Your task to perform on an android device: allow cookies in the chrome app Image 0: 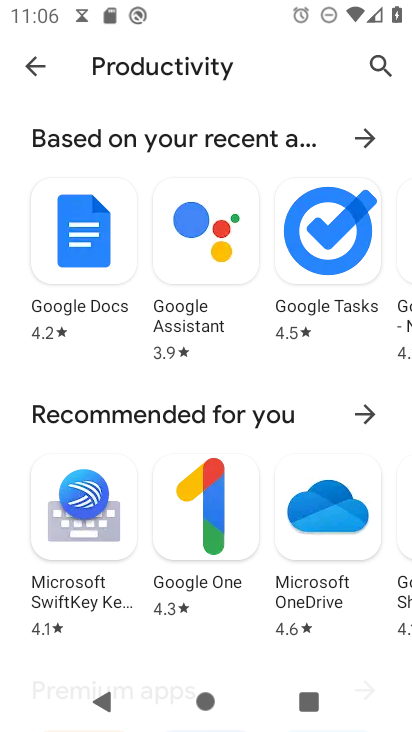
Step 0: press home button
Your task to perform on an android device: allow cookies in the chrome app Image 1: 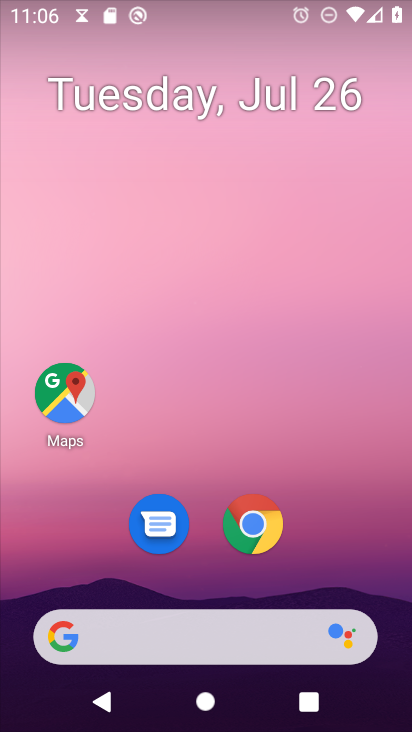
Step 1: click (246, 529)
Your task to perform on an android device: allow cookies in the chrome app Image 2: 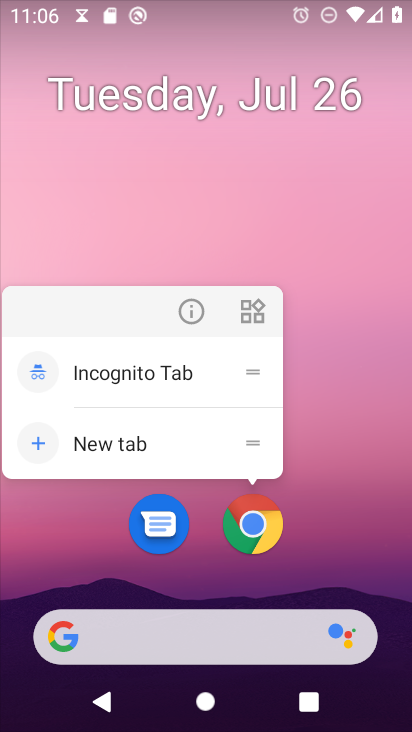
Step 2: click (249, 526)
Your task to perform on an android device: allow cookies in the chrome app Image 3: 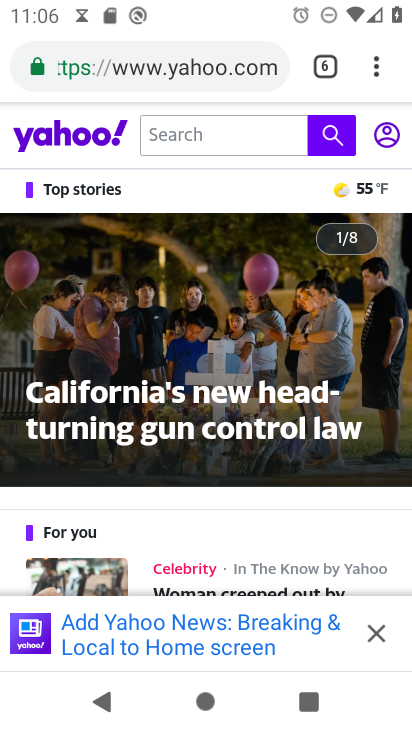
Step 3: click (376, 635)
Your task to perform on an android device: allow cookies in the chrome app Image 4: 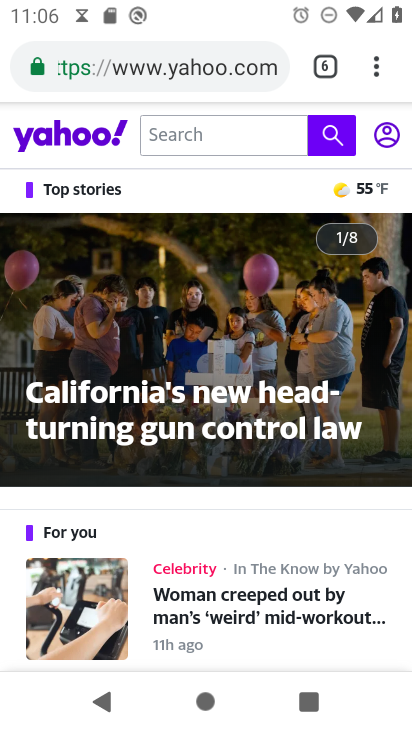
Step 4: drag from (380, 72) to (225, 538)
Your task to perform on an android device: allow cookies in the chrome app Image 5: 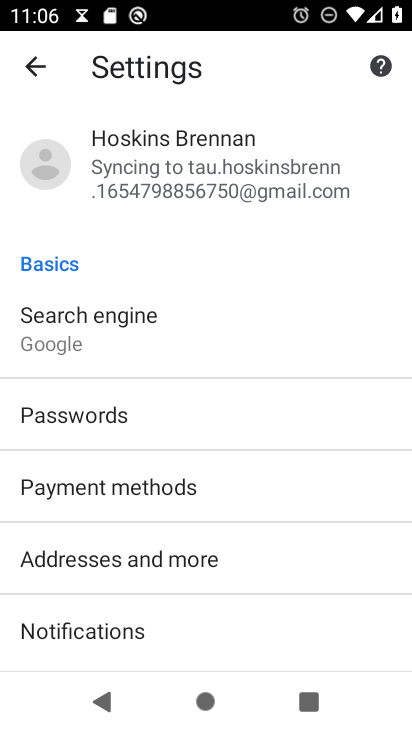
Step 5: drag from (183, 625) to (275, 315)
Your task to perform on an android device: allow cookies in the chrome app Image 6: 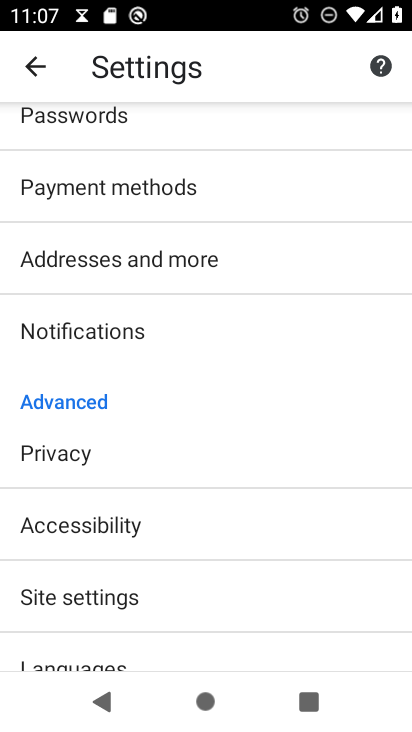
Step 6: click (113, 604)
Your task to perform on an android device: allow cookies in the chrome app Image 7: 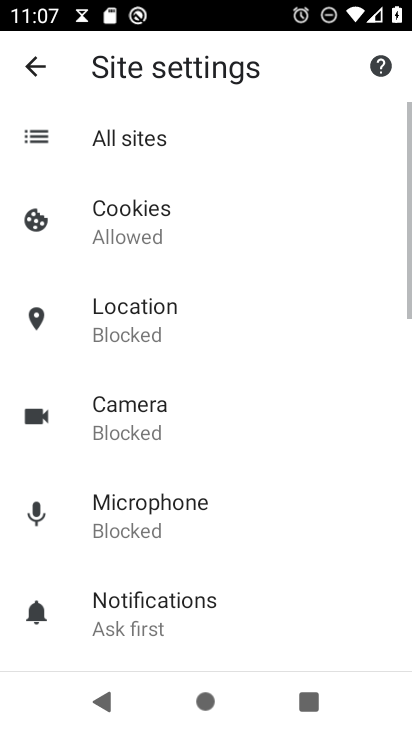
Step 7: click (143, 222)
Your task to perform on an android device: allow cookies in the chrome app Image 8: 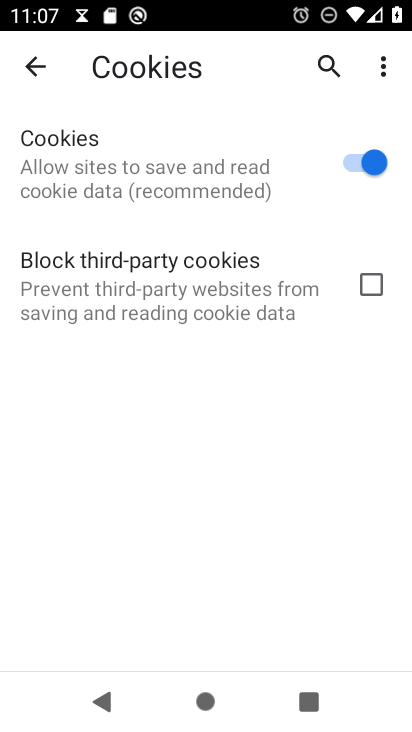
Step 8: task complete